Your task to perform on an android device: turn on airplane mode Image 0: 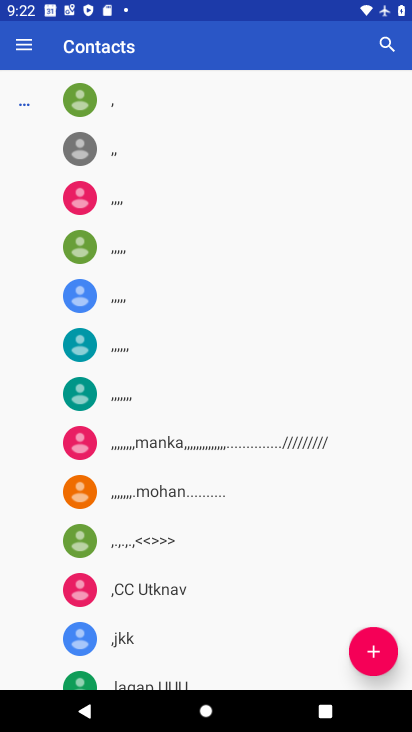
Step 0: press home button
Your task to perform on an android device: turn on airplane mode Image 1: 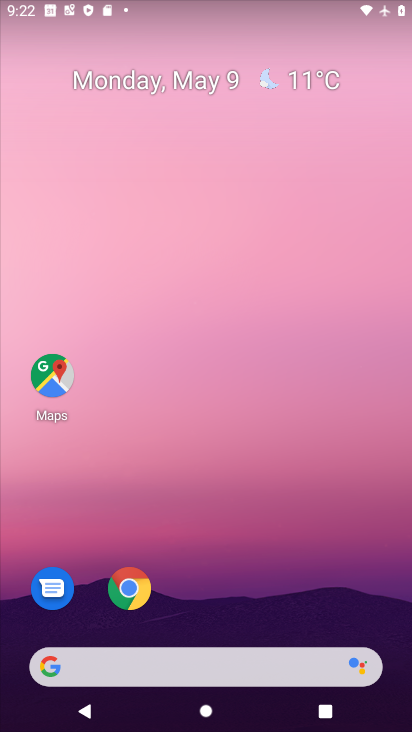
Step 1: drag from (175, 665) to (277, 137)
Your task to perform on an android device: turn on airplane mode Image 2: 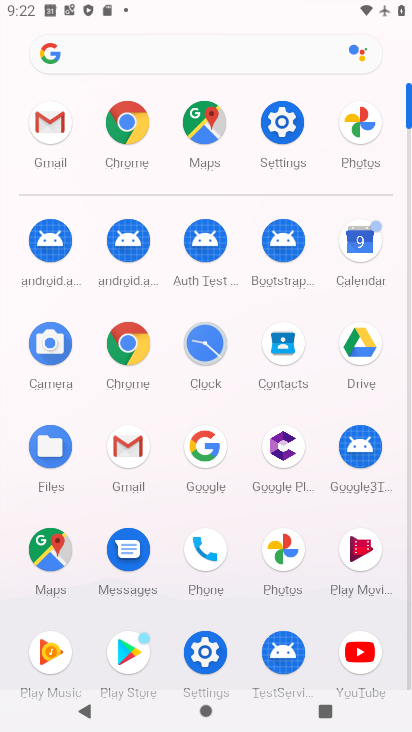
Step 2: click (278, 132)
Your task to perform on an android device: turn on airplane mode Image 3: 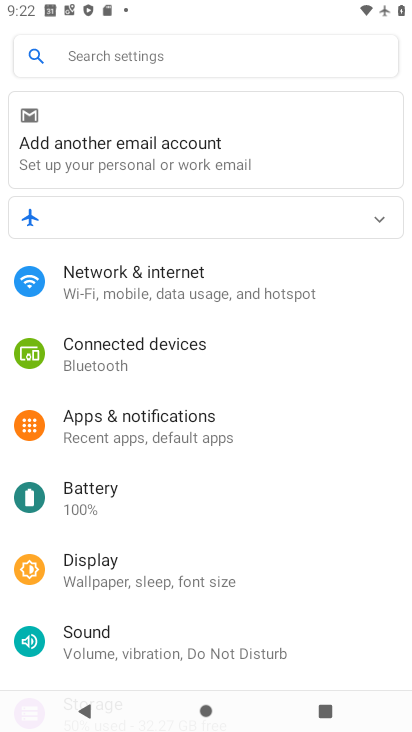
Step 3: click (210, 283)
Your task to perform on an android device: turn on airplane mode Image 4: 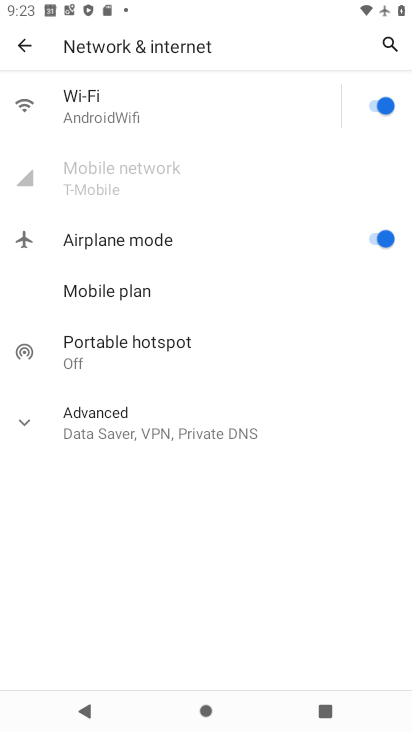
Step 4: task complete